Your task to perform on an android device: Open Google Chrome Image 0: 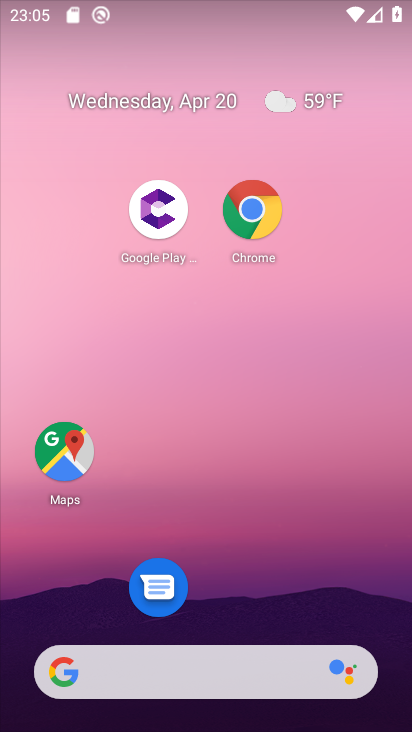
Step 0: click (249, 202)
Your task to perform on an android device: Open Google Chrome Image 1: 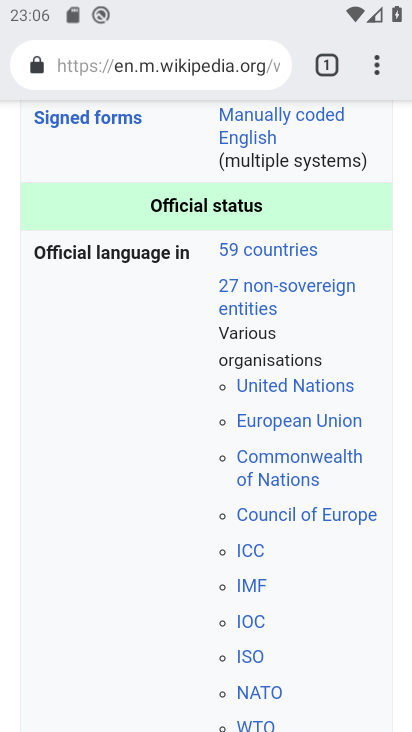
Step 1: click (329, 68)
Your task to perform on an android device: Open Google Chrome Image 2: 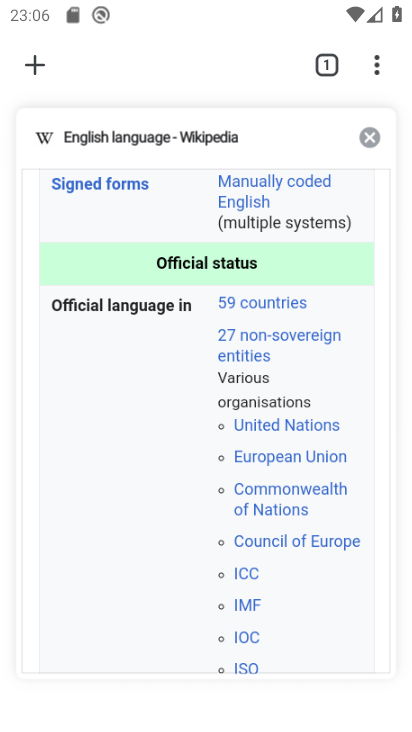
Step 2: click (367, 134)
Your task to perform on an android device: Open Google Chrome Image 3: 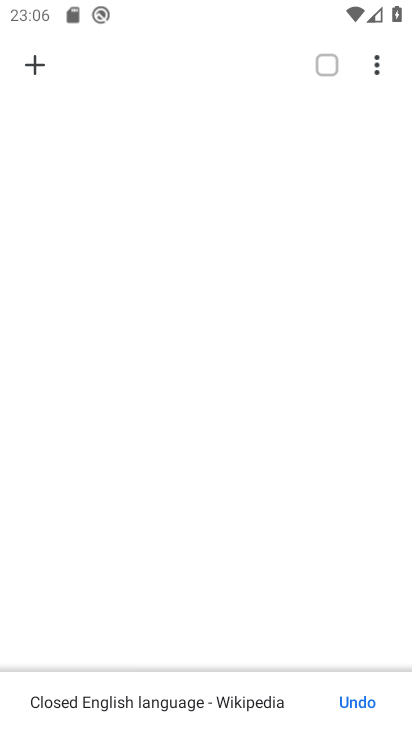
Step 3: click (38, 66)
Your task to perform on an android device: Open Google Chrome Image 4: 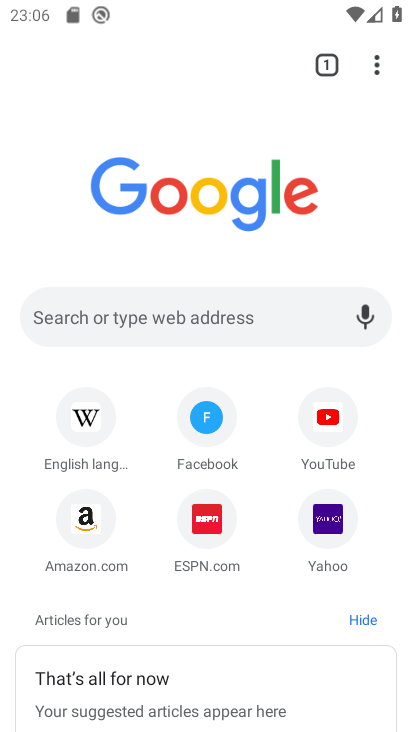
Step 4: task complete